Your task to perform on an android device: turn off sleep mode Image 0: 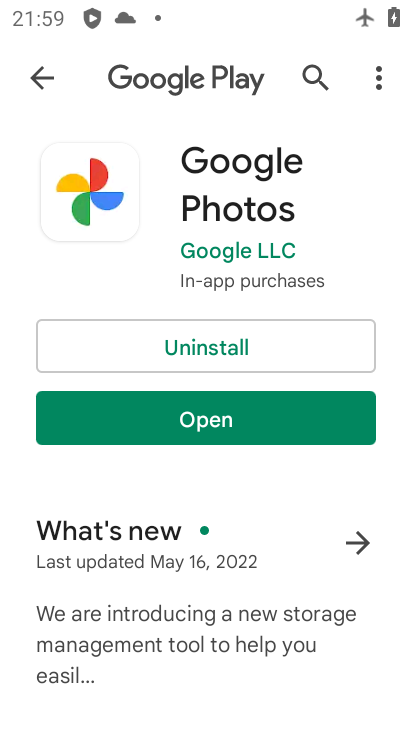
Step 0: press home button
Your task to perform on an android device: turn off sleep mode Image 1: 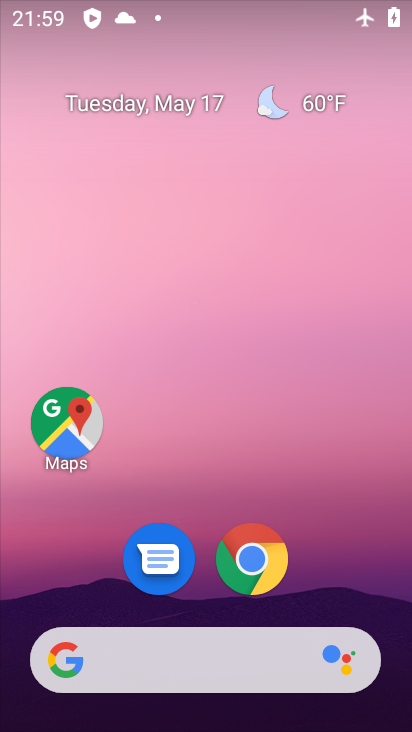
Step 1: drag from (364, 506) to (324, 4)
Your task to perform on an android device: turn off sleep mode Image 2: 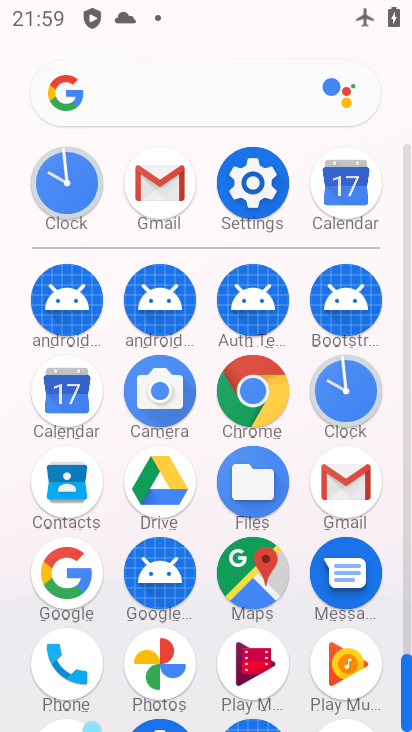
Step 2: click (271, 178)
Your task to perform on an android device: turn off sleep mode Image 3: 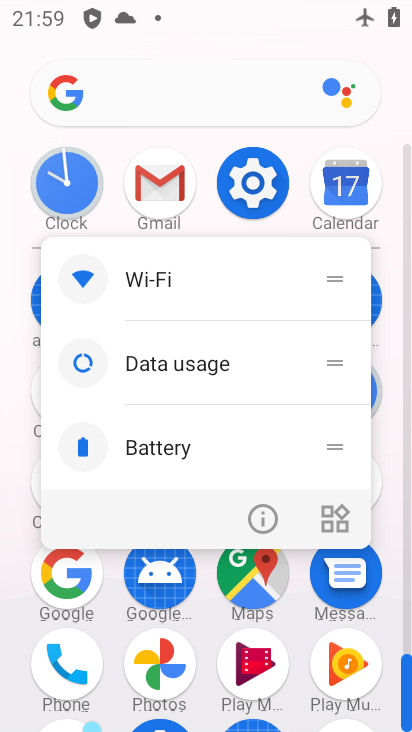
Step 3: click (259, 189)
Your task to perform on an android device: turn off sleep mode Image 4: 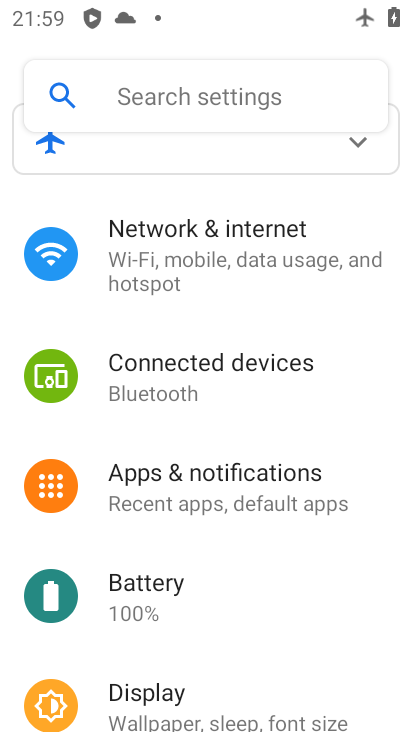
Step 4: click (306, 589)
Your task to perform on an android device: turn off sleep mode Image 5: 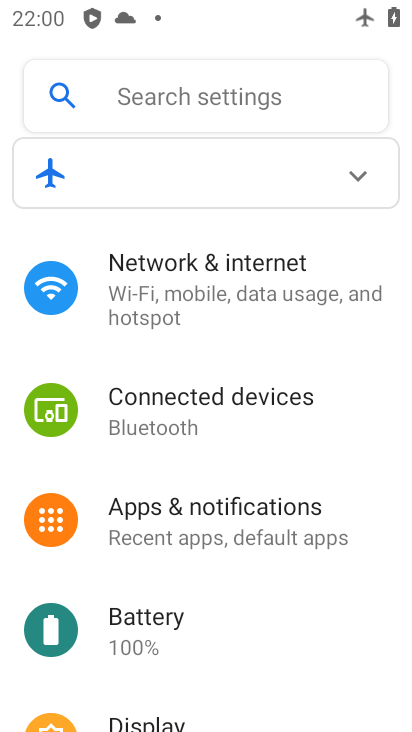
Step 5: click (284, 279)
Your task to perform on an android device: turn off sleep mode Image 6: 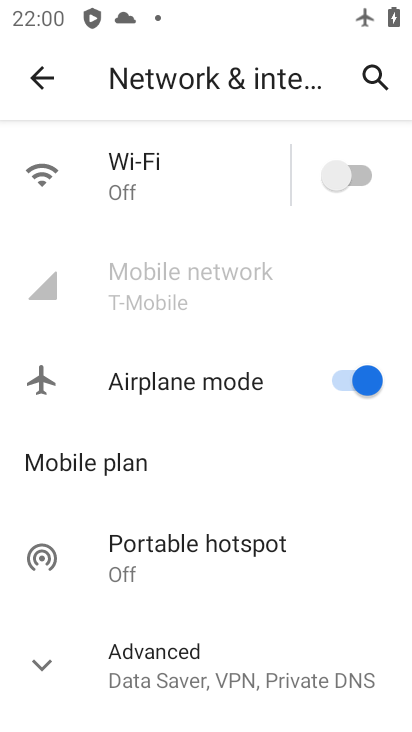
Step 6: click (46, 79)
Your task to perform on an android device: turn off sleep mode Image 7: 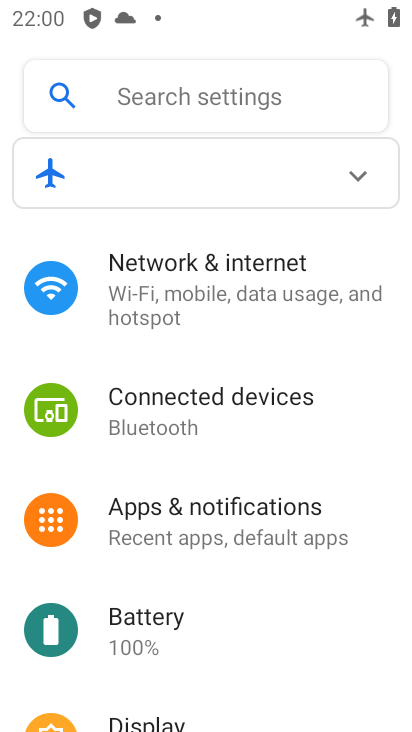
Step 7: click (186, 718)
Your task to perform on an android device: turn off sleep mode Image 8: 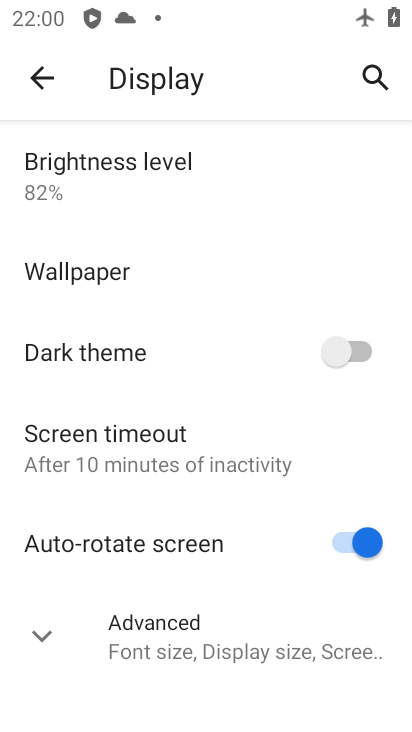
Step 8: click (171, 450)
Your task to perform on an android device: turn off sleep mode Image 9: 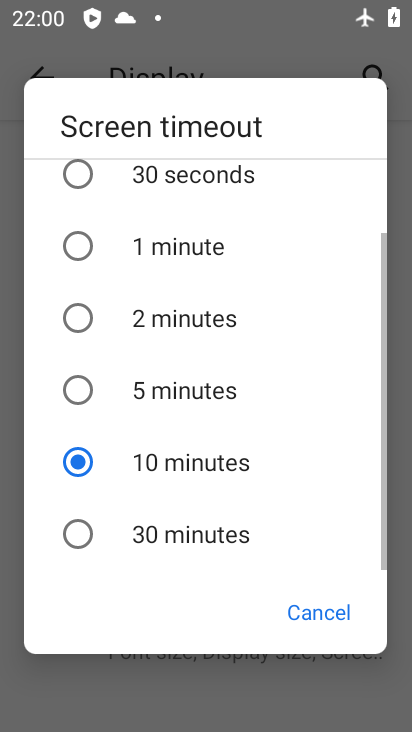
Step 9: task complete